Your task to perform on an android device: Open Chrome and go to settings Image 0: 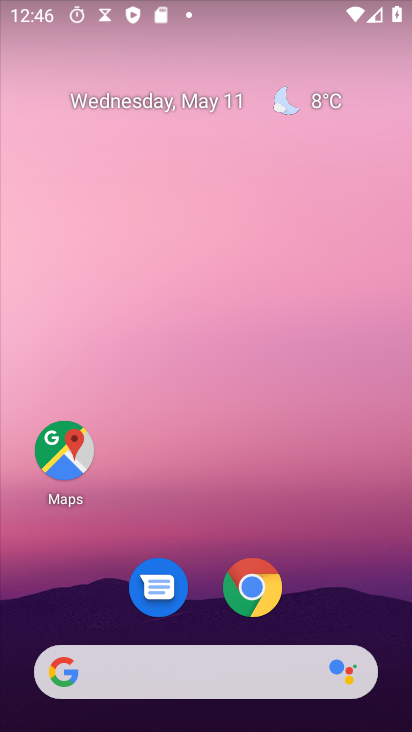
Step 0: drag from (340, 474) to (121, 2)
Your task to perform on an android device: Open Chrome and go to settings Image 1: 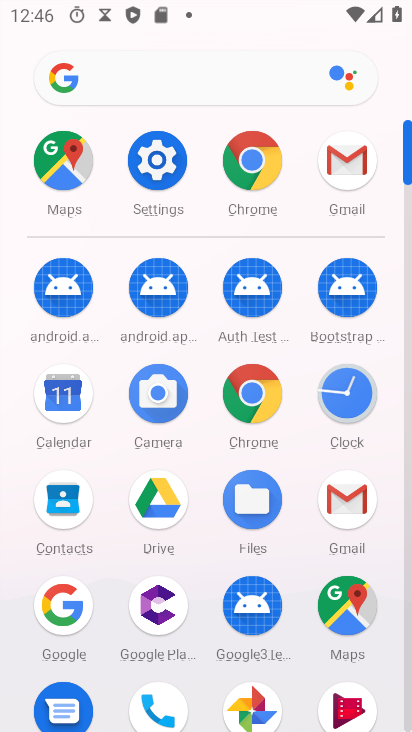
Step 1: click (255, 157)
Your task to perform on an android device: Open Chrome and go to settings Image 2: 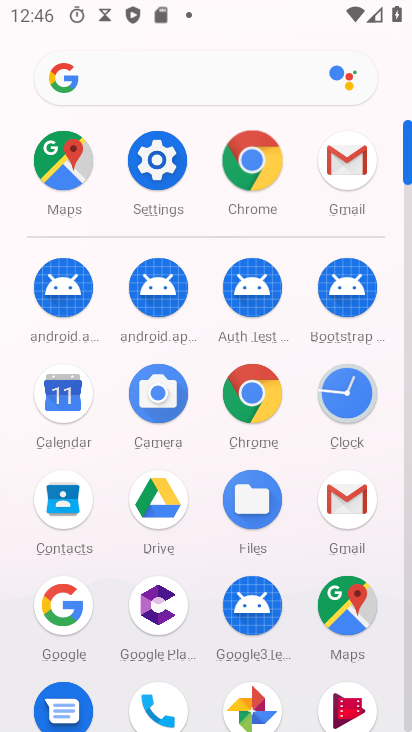
Step 2: click (255, 157)
Your task to perform on an android device: Open Chrome and go to settings Image 3: 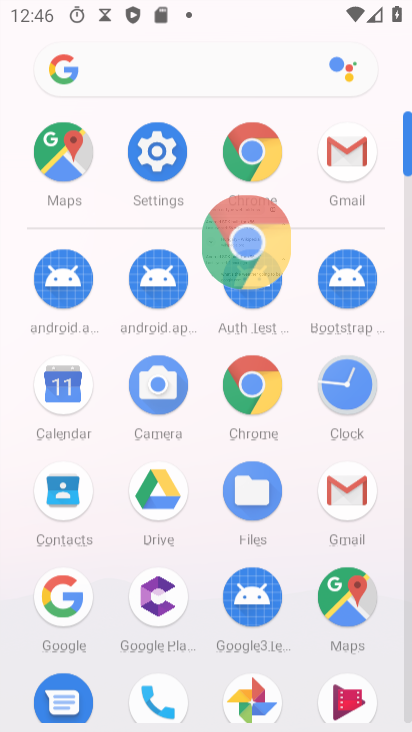
Step 3: click (255, 157)
Your task to perform on an android device: Open Chrome and go to settings Image 4: 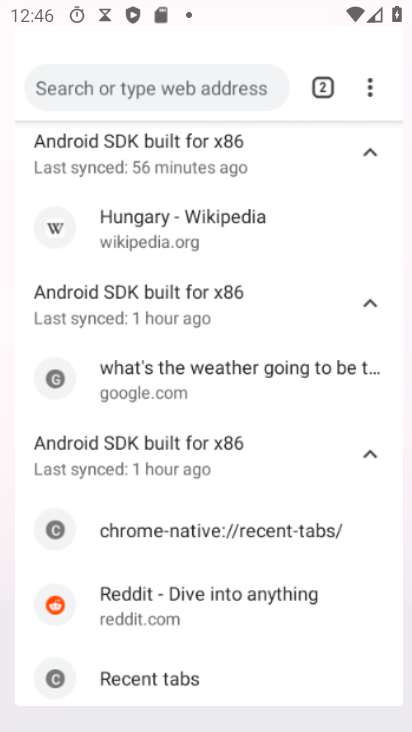
Step 4: click (251, 159)
Your task to perform on an android device: Open Chrome and go to settings Image 5: 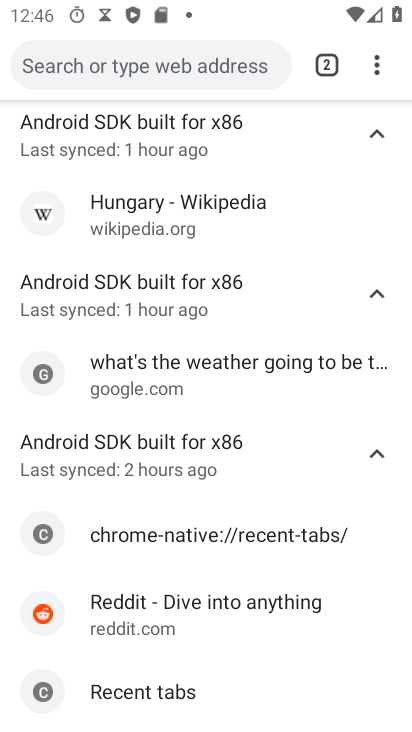
Step 5: drag from (371, 70) to (131, 559)
Your task to perform on an android device: Open Chrome and go to settings Image 6: 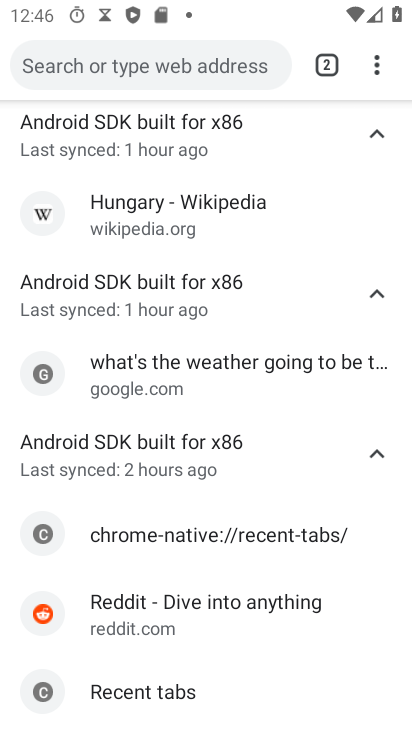
Step 6: click (131, 559)
Your task to perform on an android device: Open Chrome and go to settings Image 7: 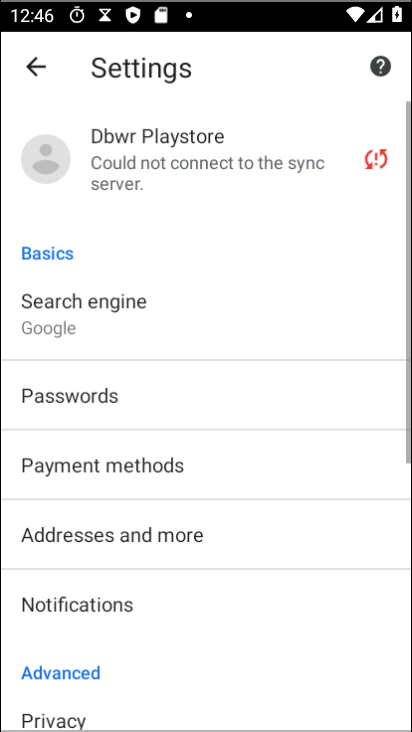
Step 7: click (132, 556)
Your task to perform on an android device: Open Chrome and go to settings Image 8: 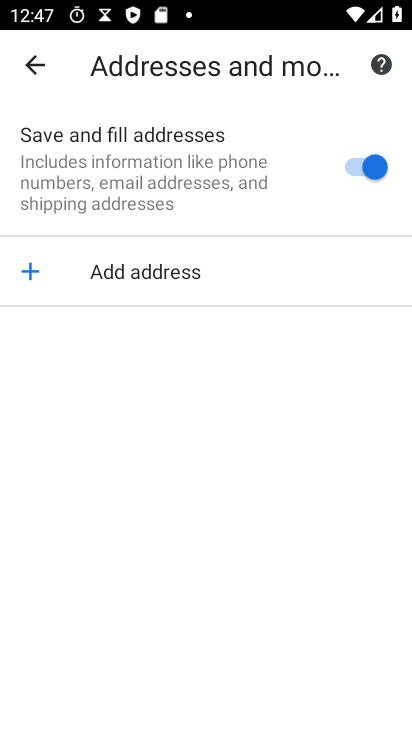
Step 8: click (32, 69)
Your task to perform on an android device: Open Chrome and go to settings Image 9: 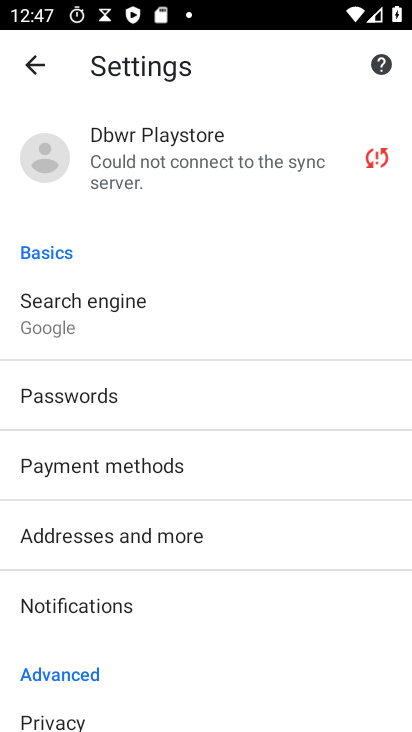
Step 9: task complete